Your task to perform on an android device: move an email to a new category in the gmail app Image 0: 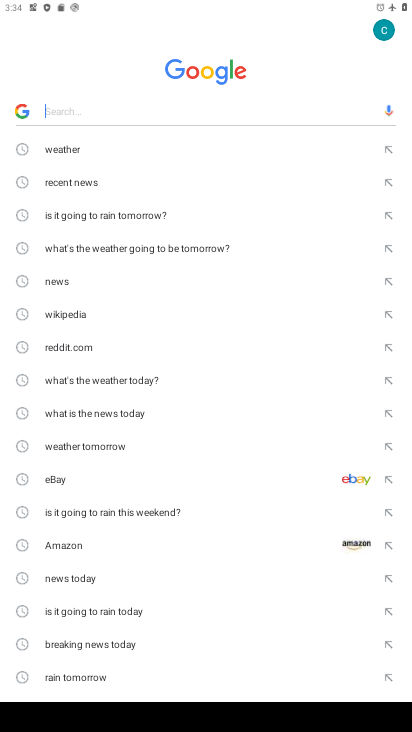
Step 0: press home button
Your task to perform on an android device: move an email to a new category in the gmail app Image 1: 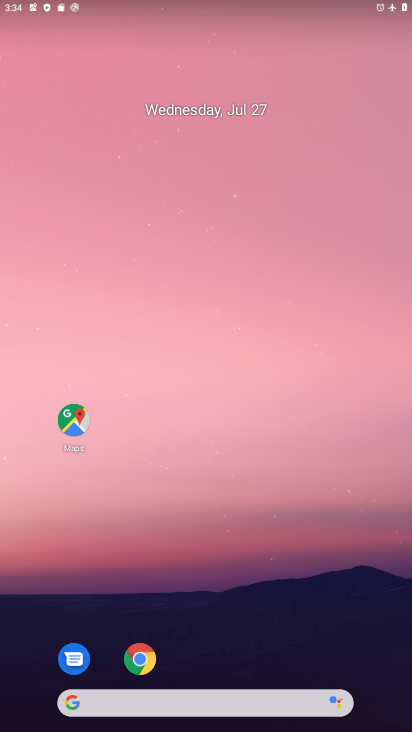
Step 1: drag from (260, 666) to (204, 99)
Your task to perform on an android device: move an email to a new category in the gmail app Image 2: 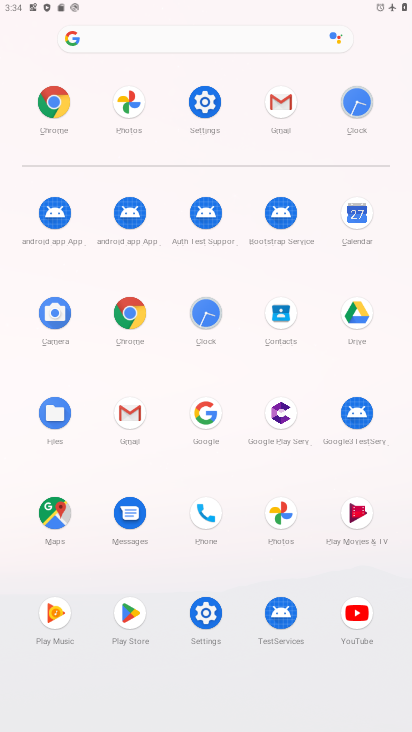
Step 2: click (275, 97)
Your task to perform on an android device: move an email to a new category in the gmail app Image 3: 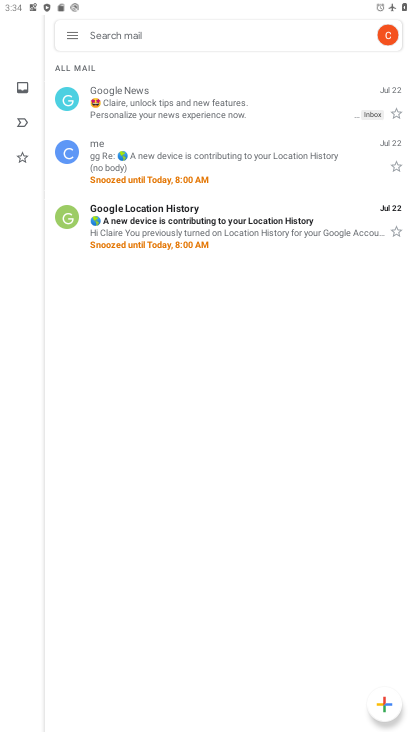
Step 3: click (275, 97)
Your task to perform on an android device: move an email to a new category in the gmail app Image 4: 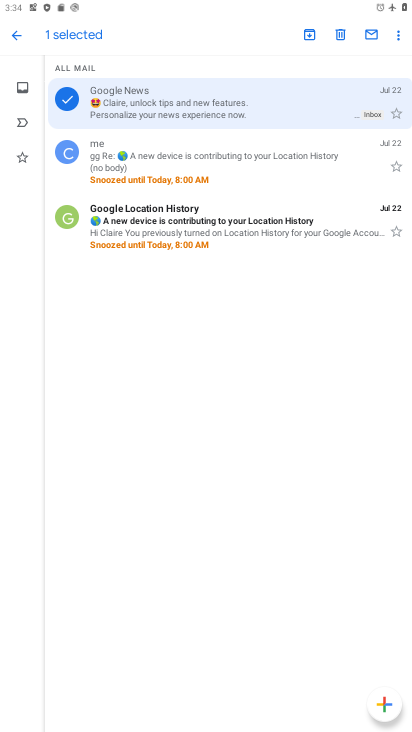
Step 4: click (396, 39)
Your task to perform on an android device: move an email to a new category in the gmail app Image 5: 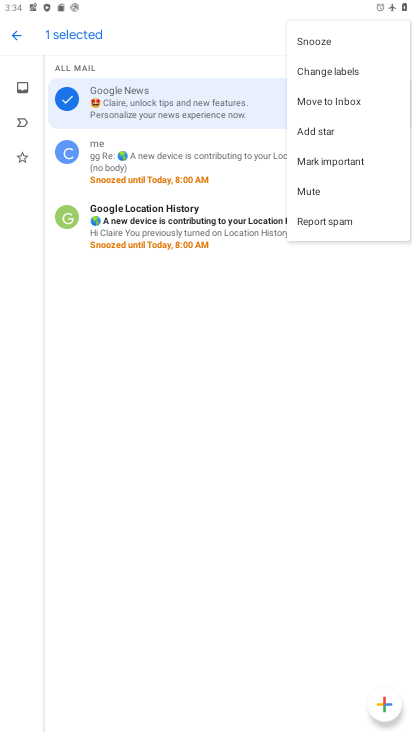
Step 5: click (386, 94)
Your task to perform on an android device: move an email to a new category in the gmail app Image 6: 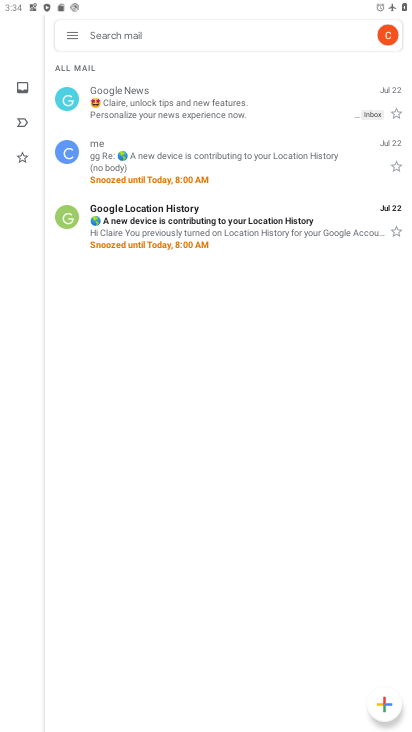
Step 6: task complete